Your task to perform on an android device: Open accessibility settings Image 0: 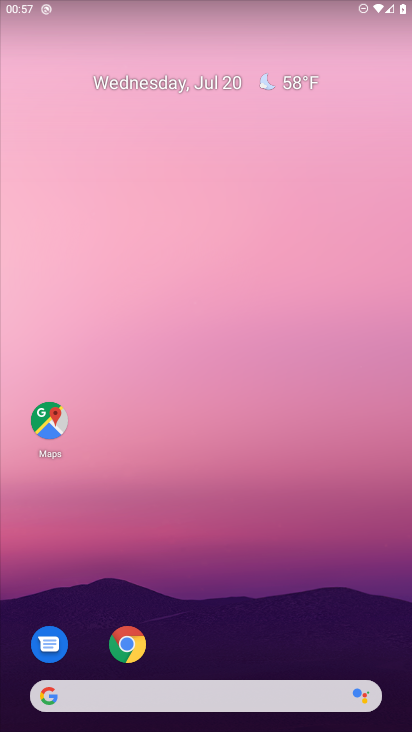
Step 0: drag from (18, 664) to (158, 396)
Your task to perform on an android device: Open accessibility settings Image 1: 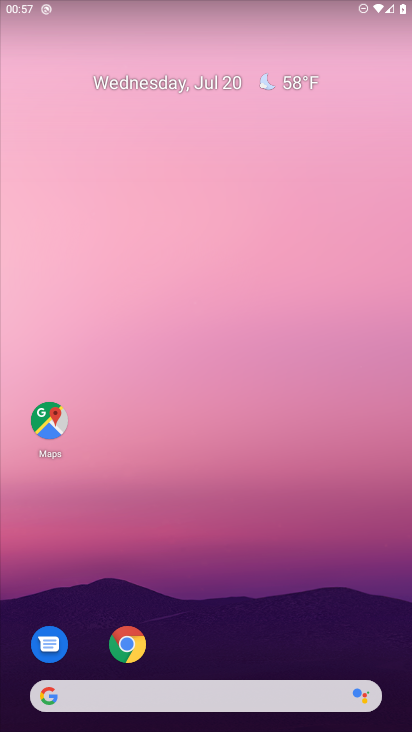
Step 1: drag from (18, 672) to (322, 3)
Your task to perform on an android device: Open accessibility settings Image 2: 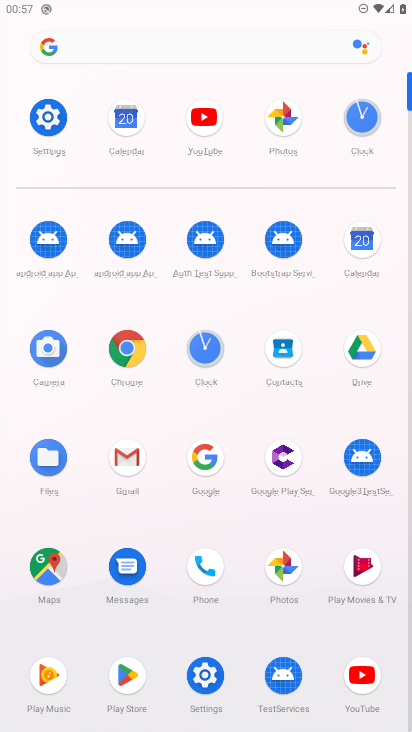
Step 2: click (197, 677)
Your task to perform on an android device: Open accessibility settings Image 3: 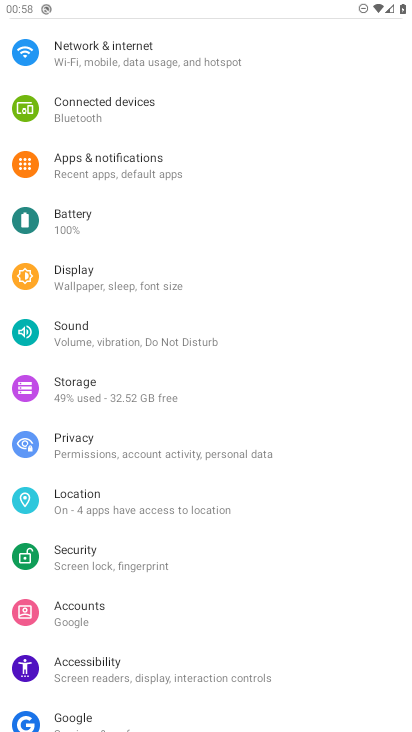
Step 3: click (84, 668)
Your task to perform on an android device: Open accessibility settings Image 4: 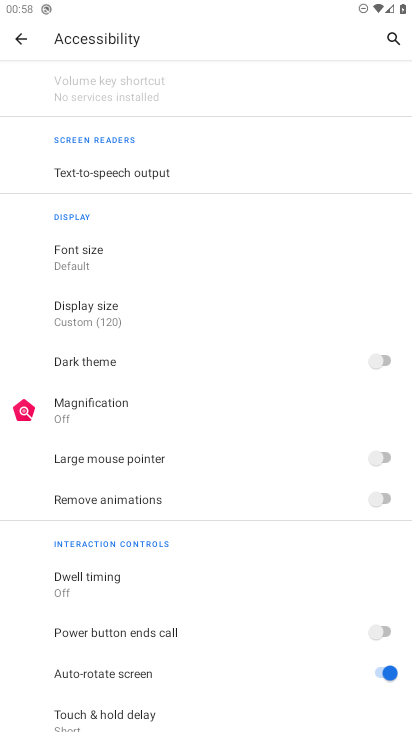
Step 4: task complete